Your task to perform on an android device: see tabs open on other devices in the chrome app Image 0: 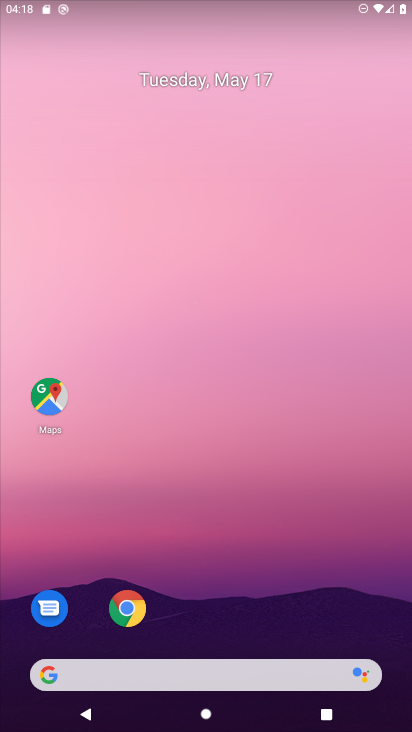
Step 0: click (130, 614)
Your task to perform on an android device: see tabs open on other devices in the chrome app Image 1: 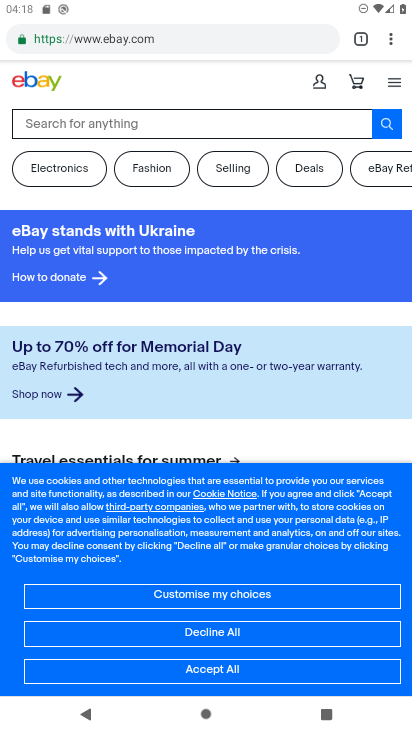
Step 1: click (357, 46)
Your task to perform on an android device: see tabs open on other devices in the chrome app Image 2: 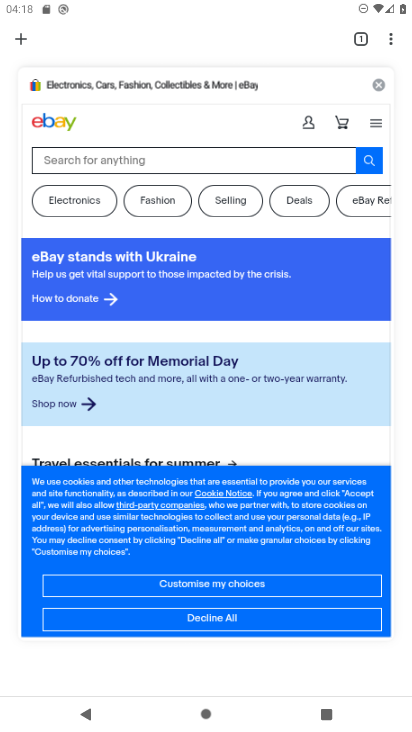
Step 2: task complete